Your task to perform on an android device: read, delete, or share a saved page in the chrome app Image 0: 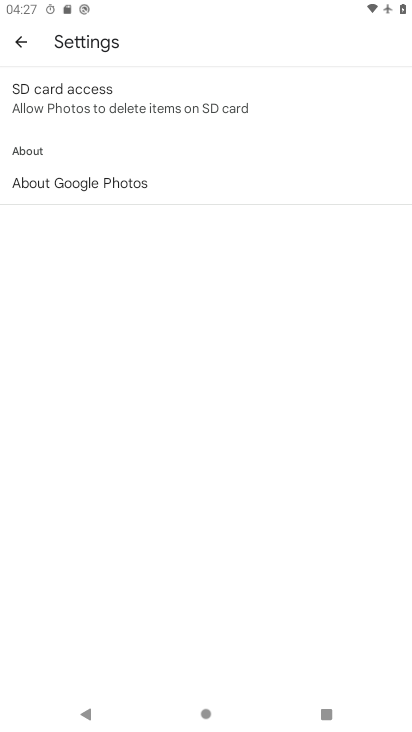
Step 0: press home button
Your task to perform on an android device: read, delete, or share a saved page in the chrome app Image 1: 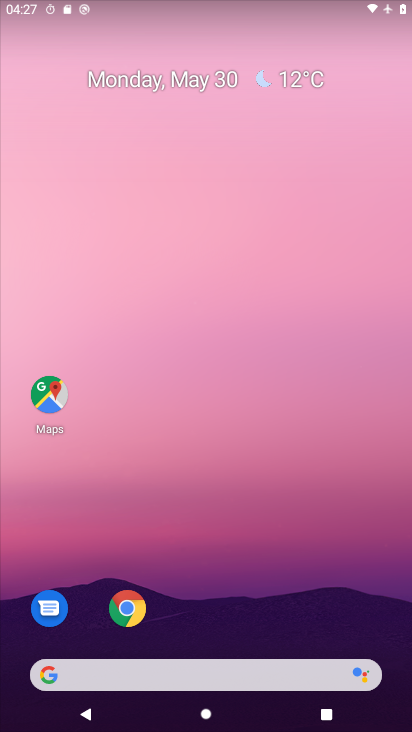
Step 1: click (143, 609)
Your task to perform on an android device: read, delete, or share a saved page in the chrome app Image 2: 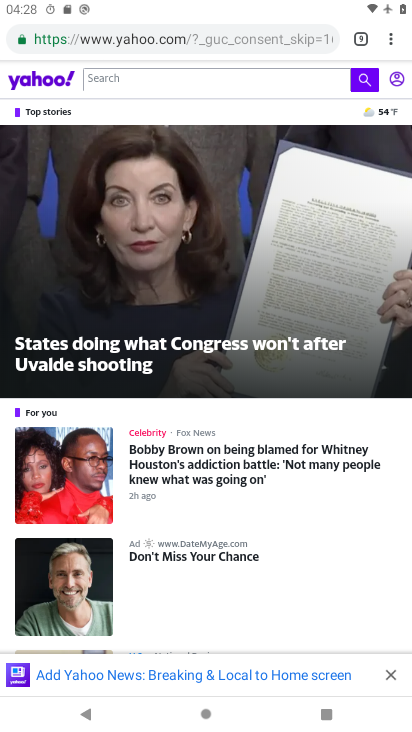
Step 2: click (391, 34)
Your task to perform on an android device: read, delete, or share a saved page in the chrome app Image 3: 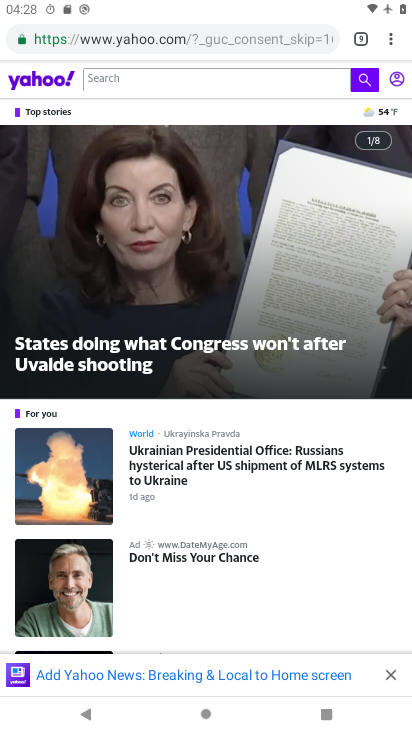
Step 3: click (387, 32)
Your task to perform on an android device: read, delete, or share a saved page in the chrome app Image 4: 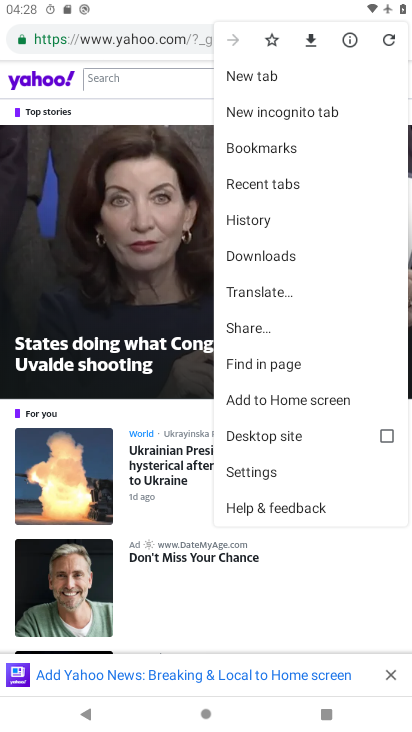
Step 4: click (280, 260)
Your task to perform on an android device: read, delete, or share a saved page in the chrome app Image 5: 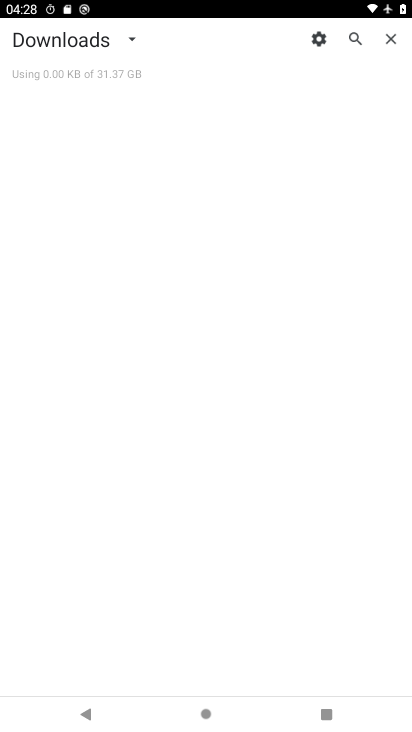
Step 5: click (110, 37)
Your task to perform on an android device: read, delete, or share a saved page in the chrome app Image 6: 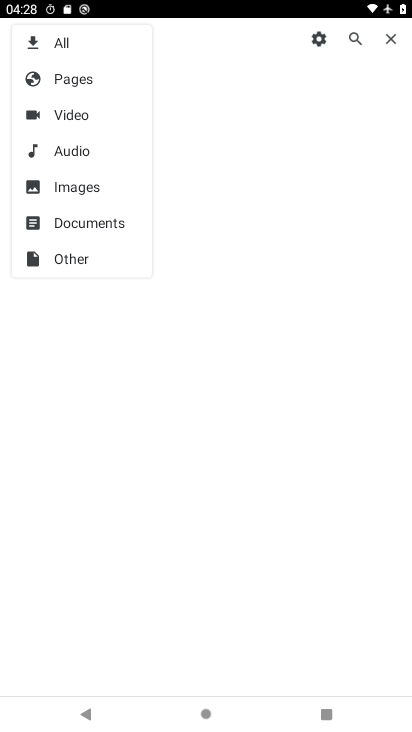
Step 6: click (102, 74)
Your task to perform on an android device: read, delete, or share a saved page in the chrome app Image 7: 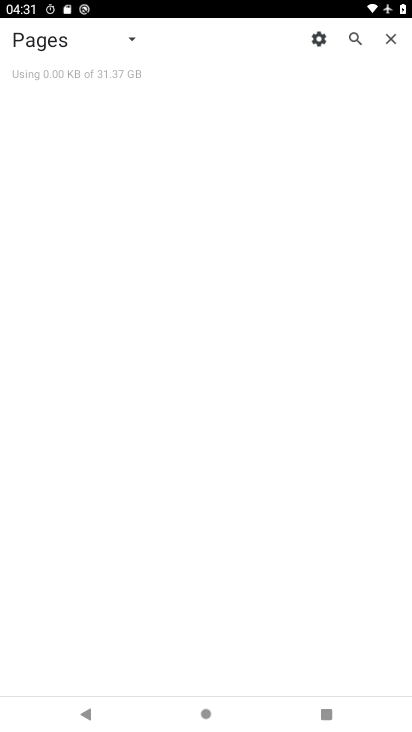
Step 7: task complete